Your task to perform on an android device: open device folders in google photos Image 0: 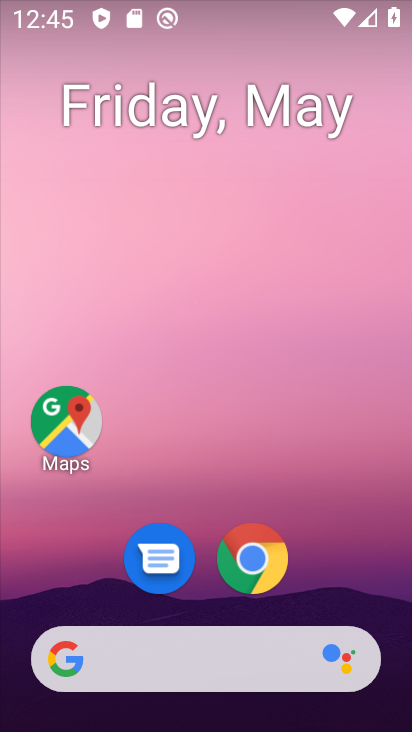
Step 0: drag from (365, 611) to (291, 122)
Your task to perform on an android device: open device folders in google photos Image 1: 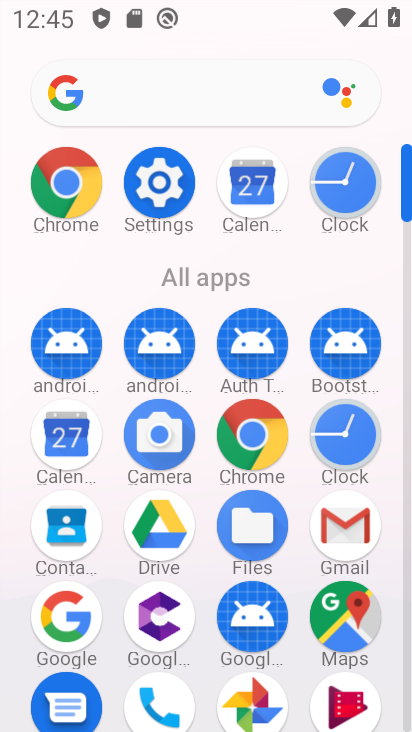
Step 1: click (259, 705)
Your task to perform on an android device: open device folders in google photos Image 2: 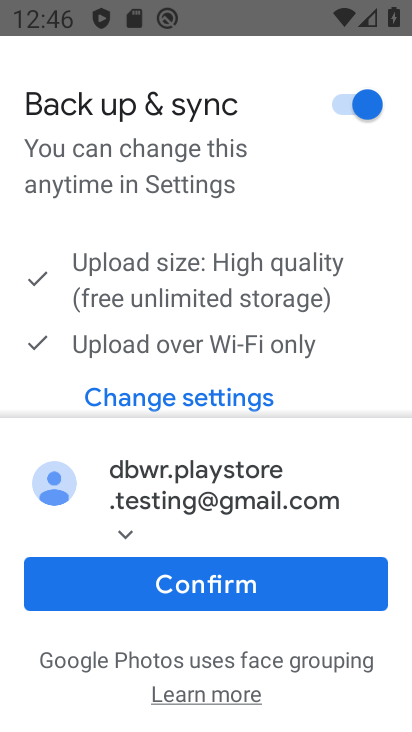
Step 2: click (241, 585)
Your task to perform on an android device: open device folders in google photos Image 3: 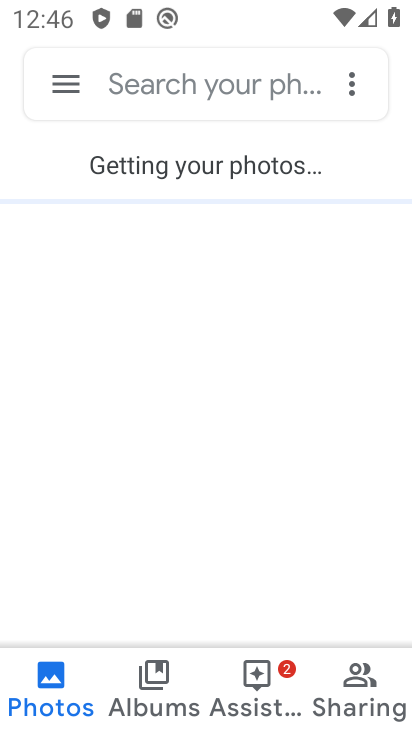
Step 3: click (65, 84)
Your task to perform on an android device: open device folders in google photos Image 4: 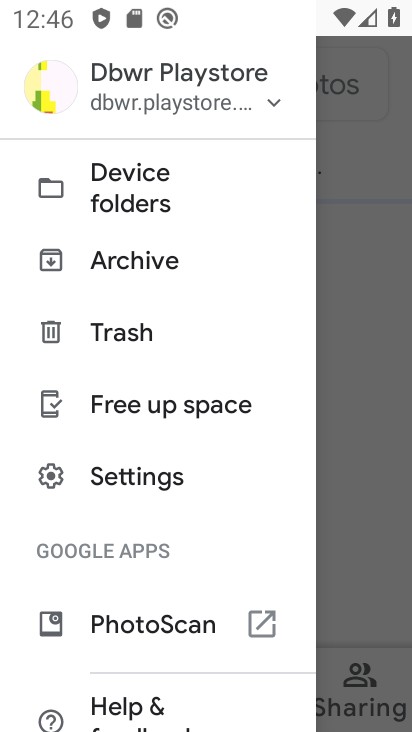
Step 4: click (158, 181)
Your task to perform on an android device: open device folders in google photos Image 5: 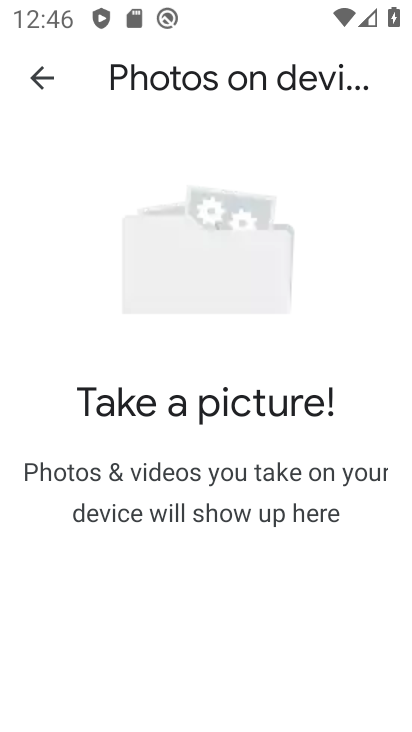
Step 5: task complete